Your task to perform on an android device: Open display settings Image 0: 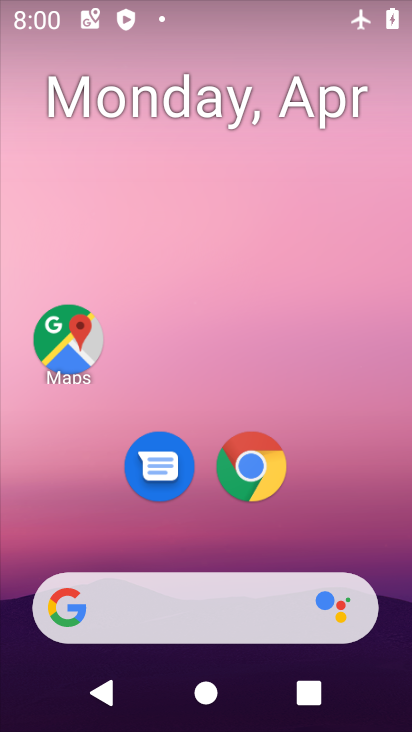
Step 0: drag from (227, 477) to (227, 137)
Your task to perform on an android device: Open display settings Image 1: 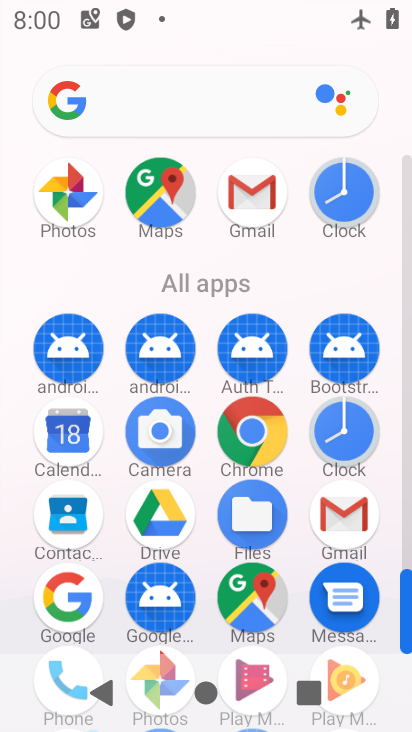
Step 1: drag from (214, 639) to (209, 310)
Your task to perform on an android device: Open display settings Image 2: 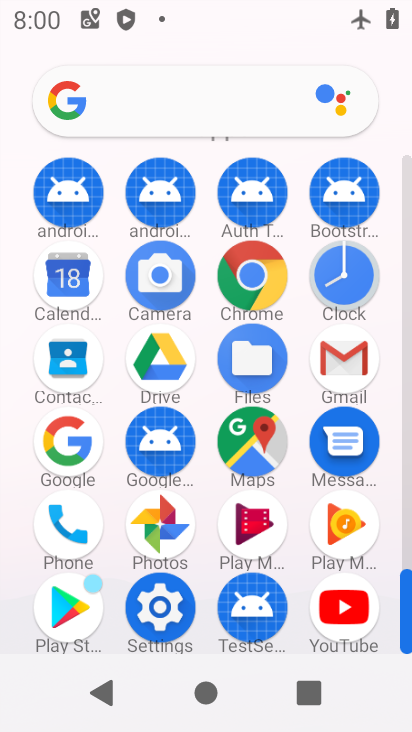
Step 2: click (155, 607)
Your task to perform on an android device: Open display settings Image 3: 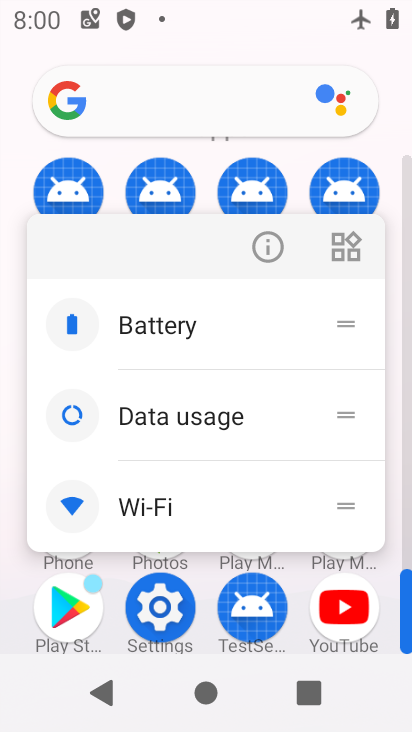
Step 3: click (257, 254)
Your task to perform on an android device: Open display settings Image 4: 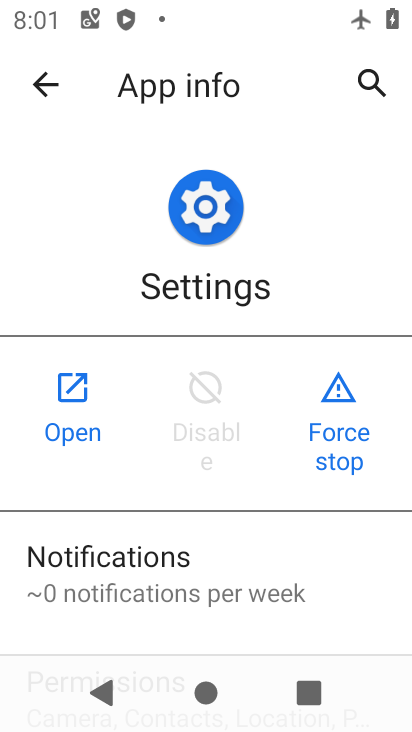
Step 4: click (68, 397)
Your task to perform on an android device: Open display settings Image 5: 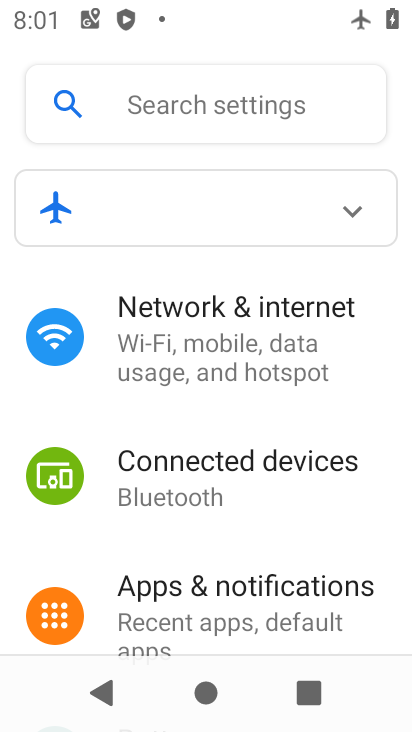
Step 5: drag from (159, 479) to (175, 222)
Your task to perform on an android device: Open display settings Image 6: 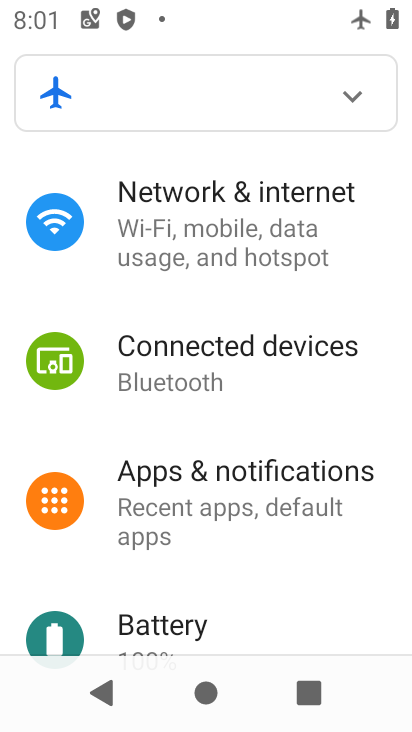
Step 6: drag from (217, 567) to (330, 125)
Your task to perform on an android device: Open display settings Image 7: 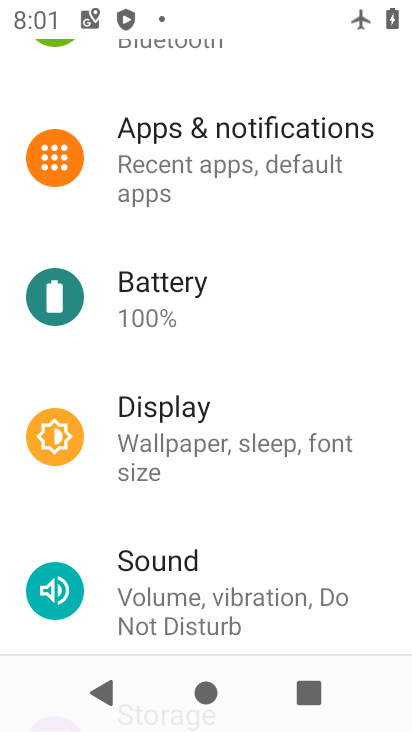
Step 7: click (181, 427)
Your task to perform on an android device: Open display settings Image 8: 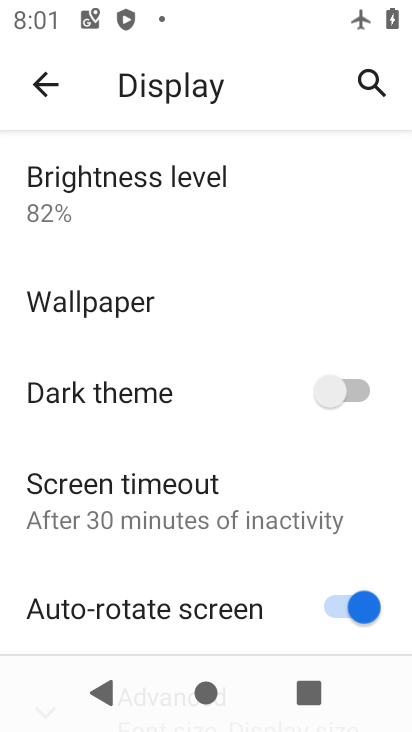
Step 8: drag from (223, 529) to (299, 285)
Your task to perform on an android device: Open display settings Image 9: 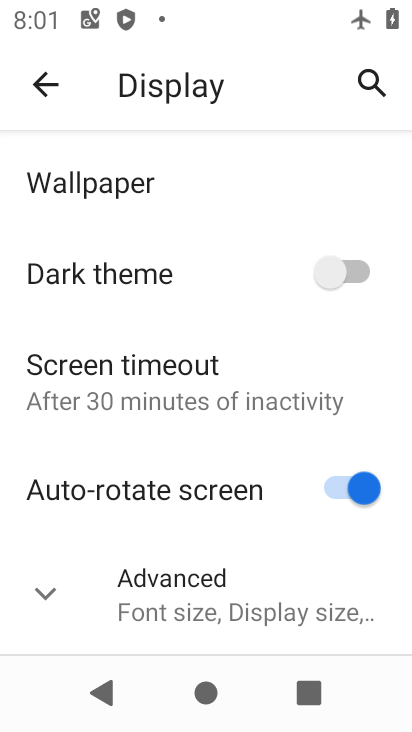
Step 9: click (220, 558)
Your task to perform on an android device: Open display settings Image 10: 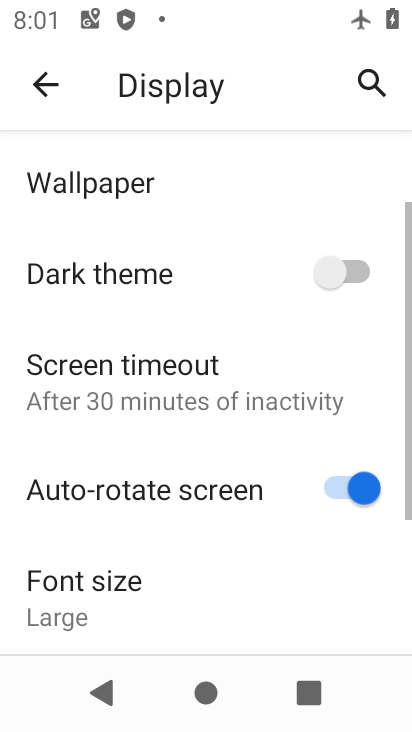
Step 10: drag from (241, 478) to (318, 163)
Your task to perform on an android device: Open display settings Image 11: 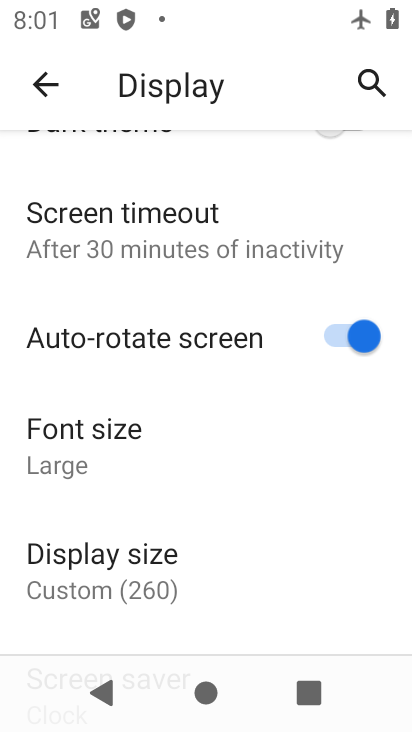
Step 11: click (189, 577)
Your task to perform on an android device: Open display settings Image 12: 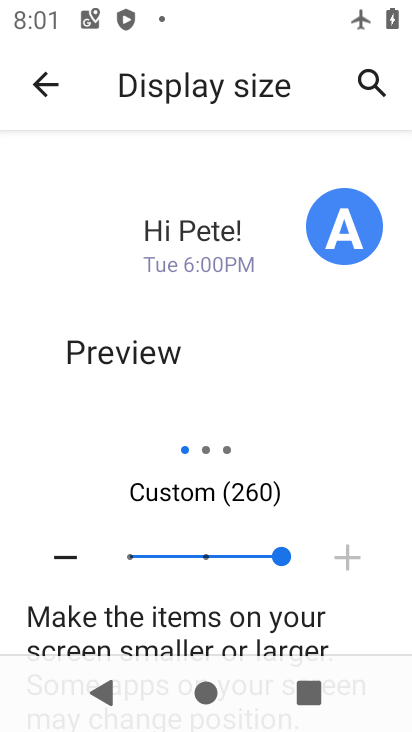
Step 12: task complete